Your task to perform on an android device: star an email in the gmail app Image 0: 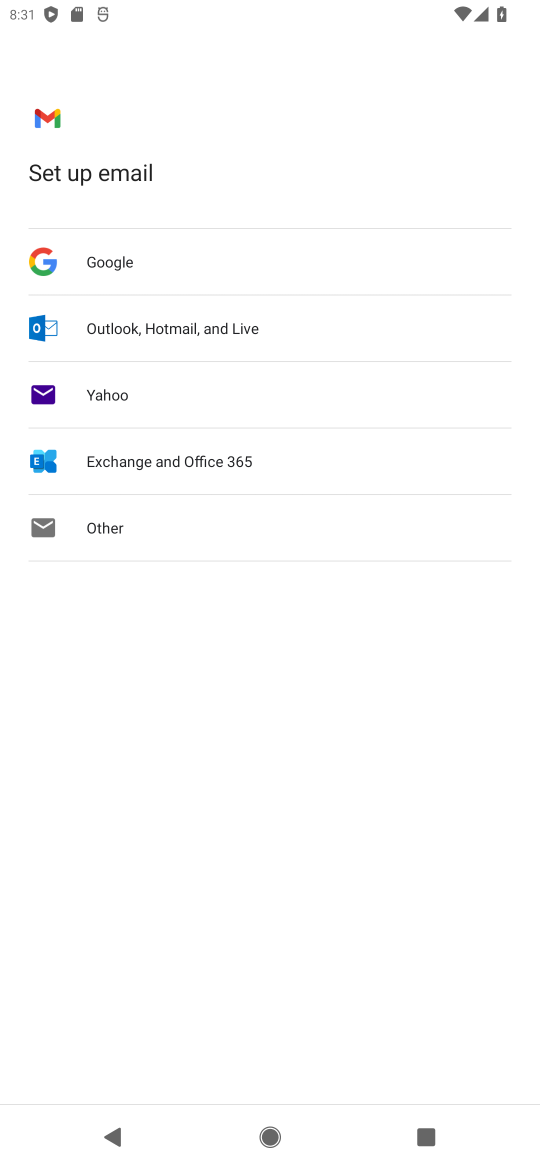
Step 0: press home button
Your task to perform on an android device: star an email in the gmail app Image 1: 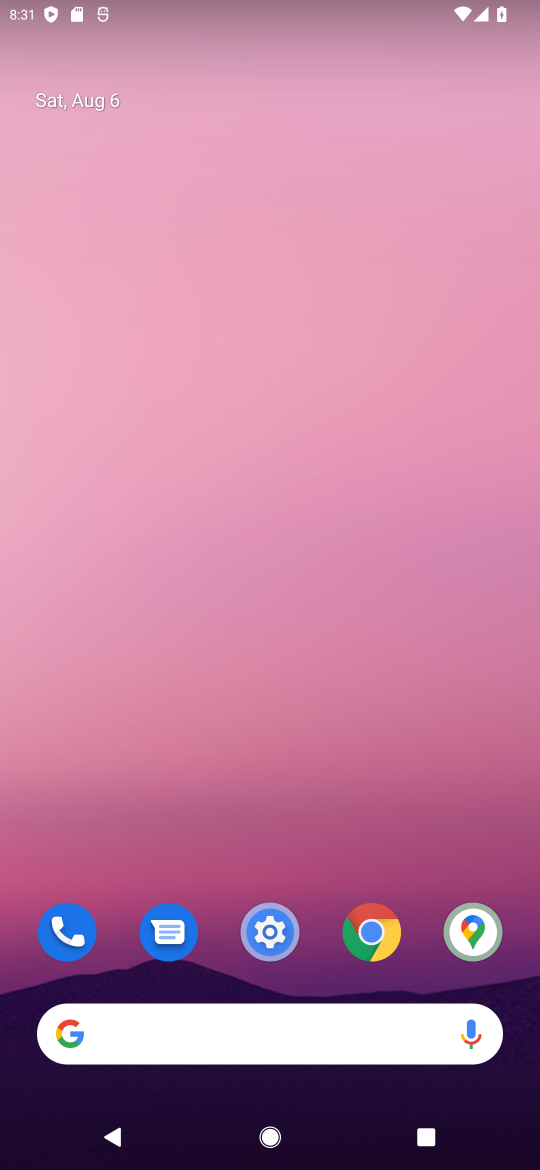
Step 1: drag from (231, 1047) to (277, 594)
Your task to perform on an android device: star an email in the gmail app Image 2: 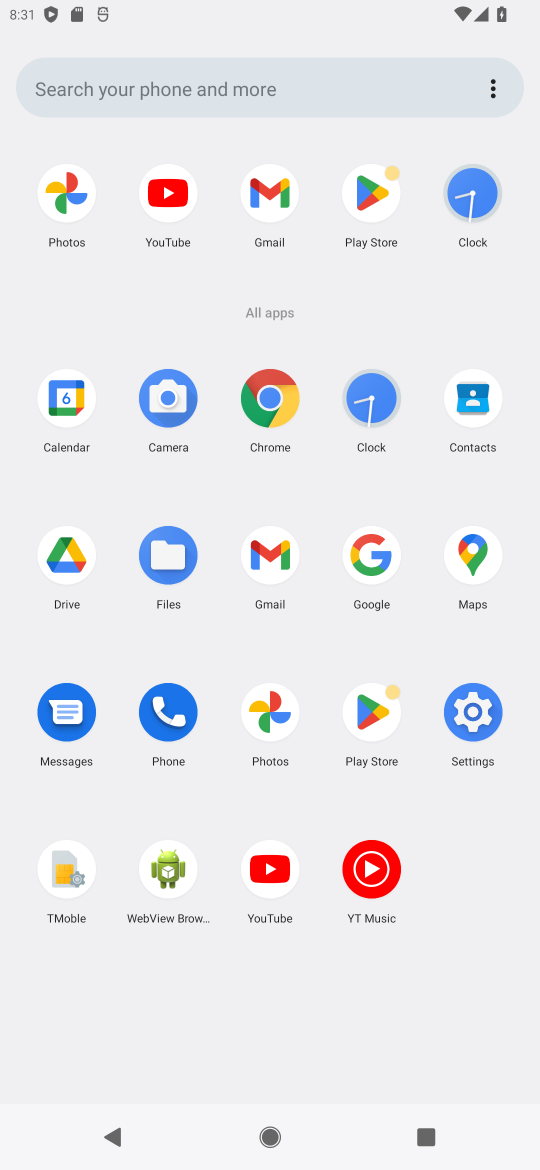
Step 2: click (270, 555)
Your task to perform on an android device: star an email in the gmail app Image 3: 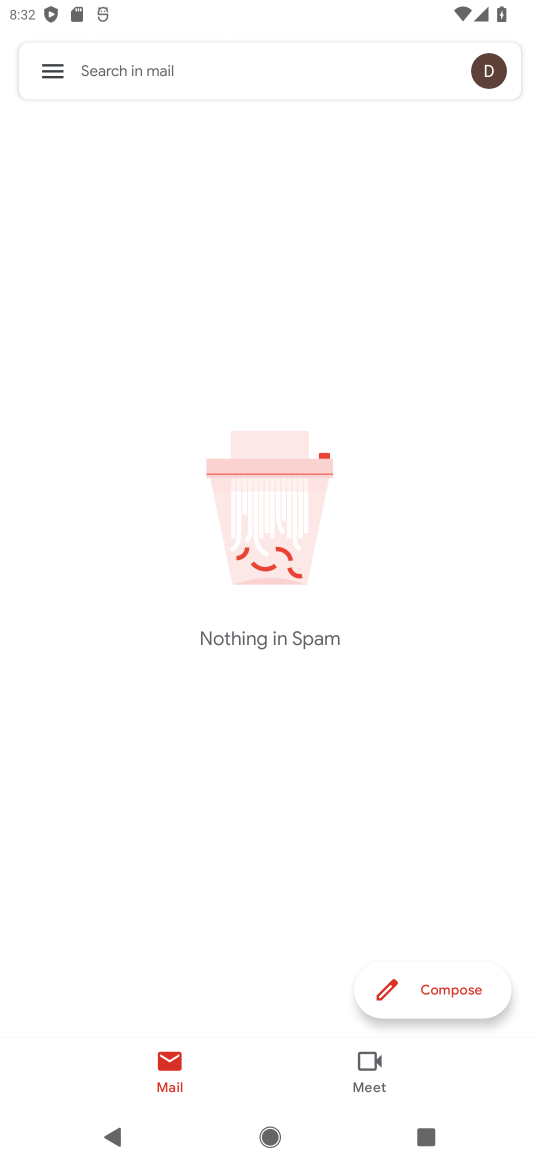
Step 3: click (46, 77)
Your task to perform on an android device: star an email in the gmail app Image 4: 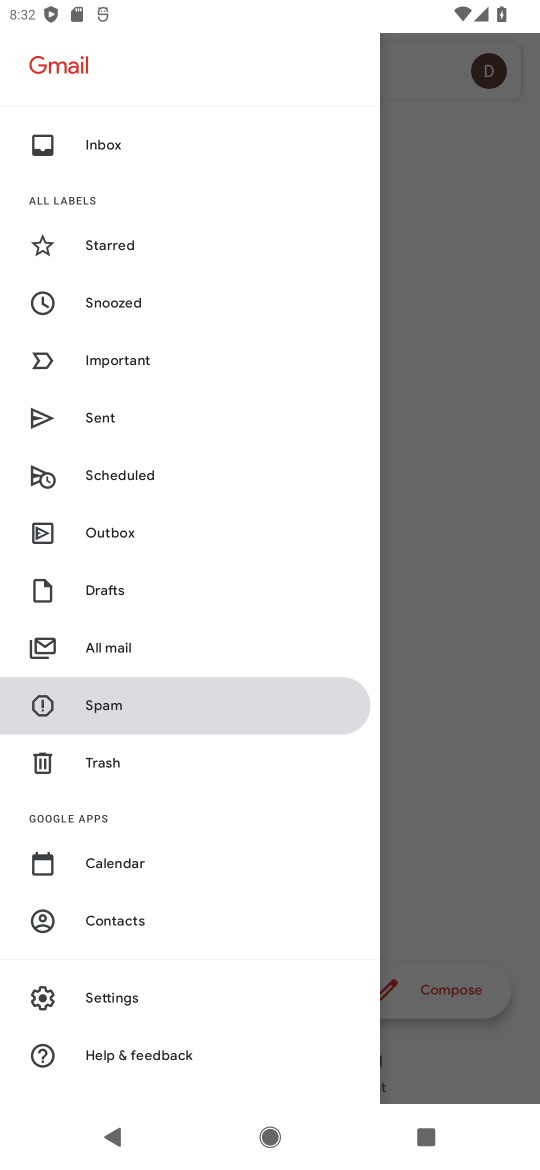
Step 4: click (101, 645)
Your task to perform on an android device: star an email in the gmail app Image 5: 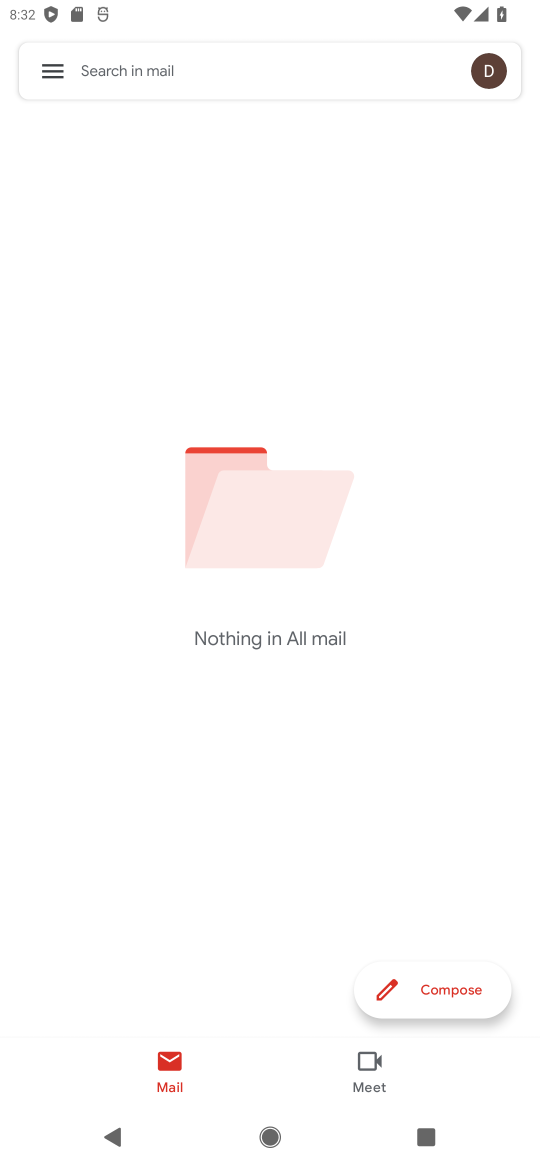
Step 5: click (49, 73)
Your task to perform on an android device: star an email in the gmail app Image 6: 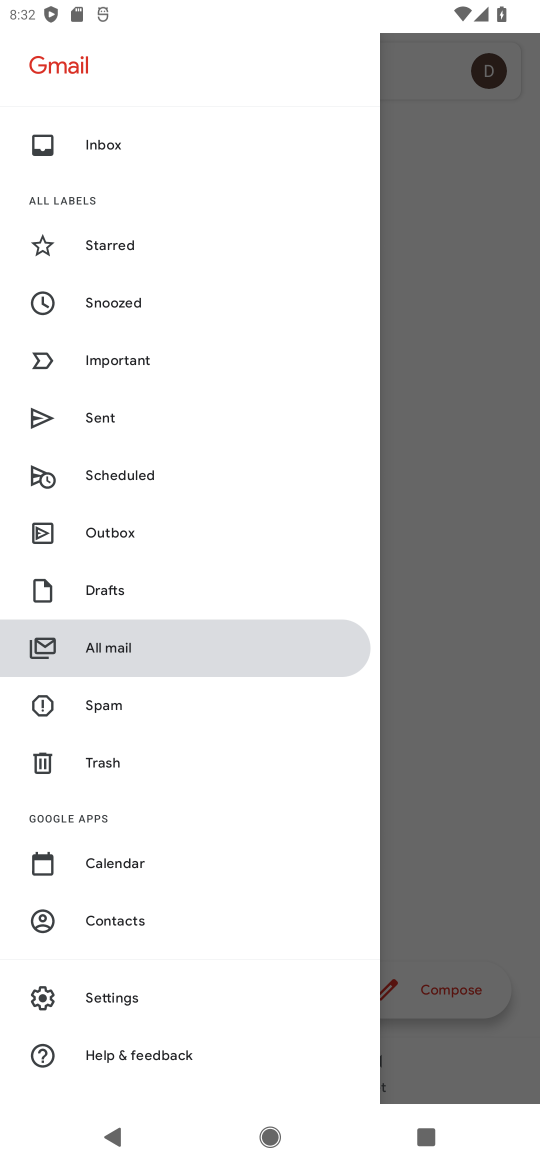
Step 6: click (89, 142)
Your task to perform on an android device: star an email in the gmail app Image 7: 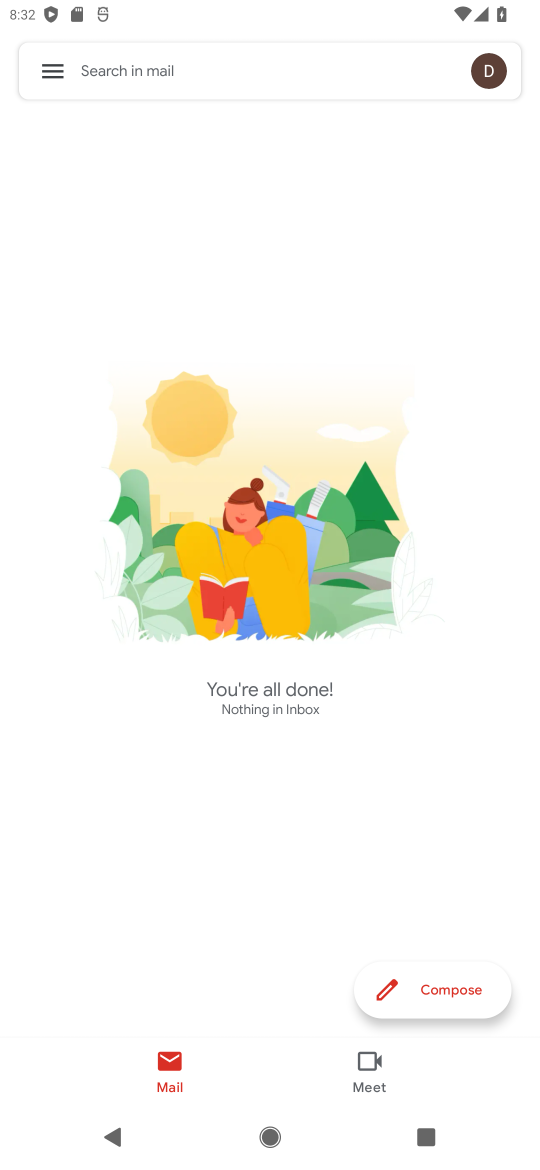
Step 7: click (44, 69)
Your task to perform on an android device: star an email in the gmail app Image 8: 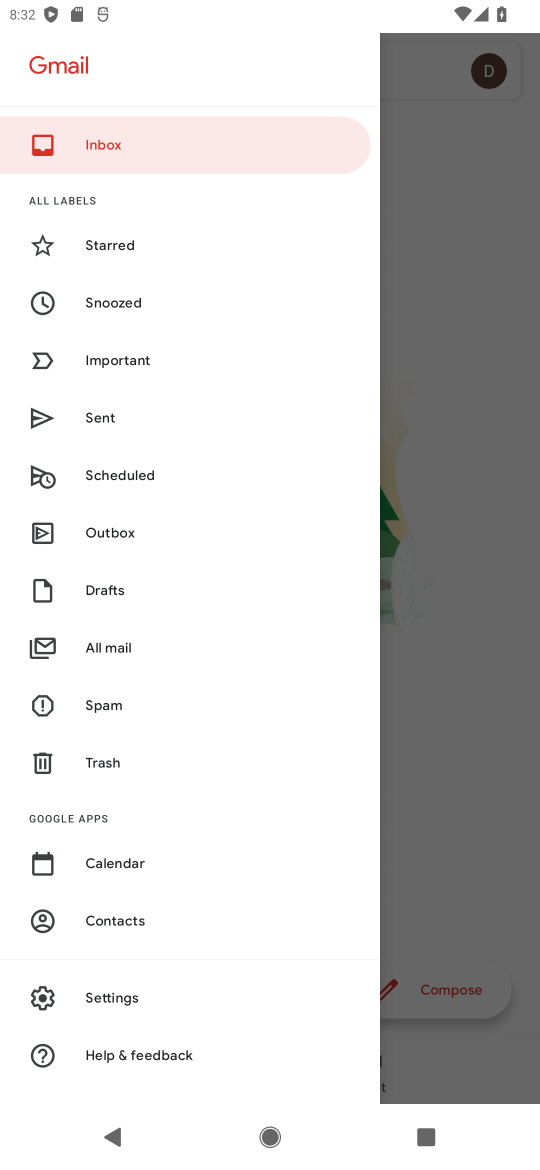
Step 8: click (117, 236)
Your task to perform on an android device: star an email in the gmail app Image 9: 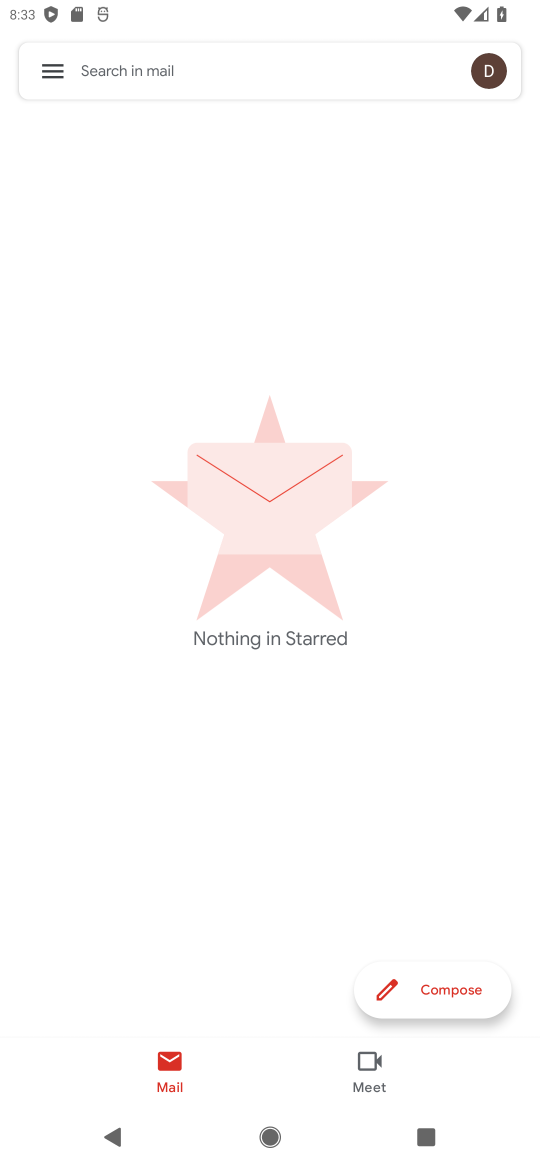
Step 9: click (57, 73)
Your task to perform on an android device: star an email in the gmail app Image 10: 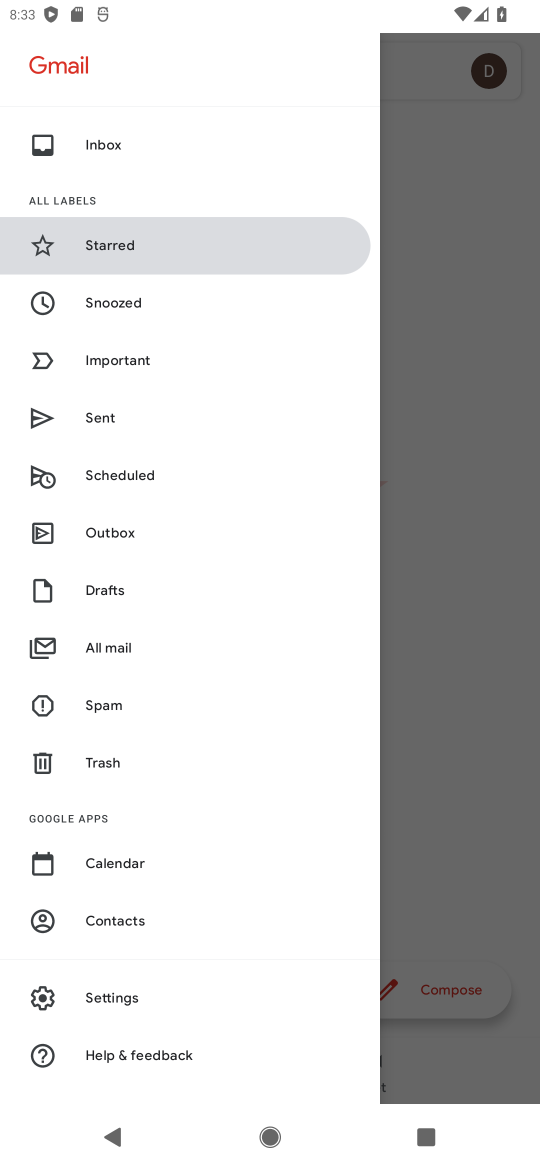
Step 10: click (130, 304)
Your task to perform on an android device: star an email in the gmail app Image 11: 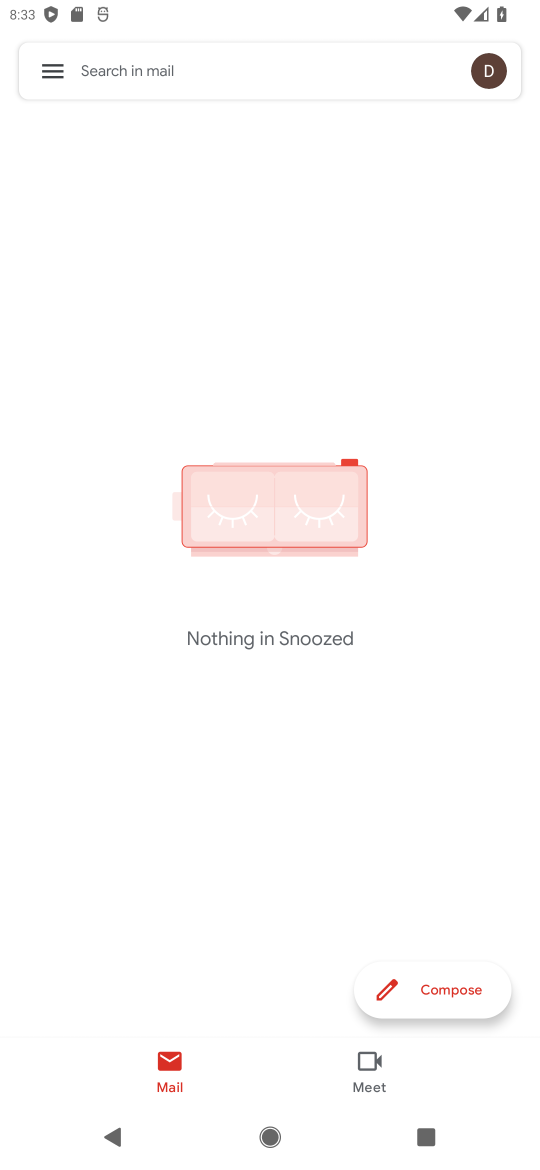
Step 11: click (45, 75)
Your task to perform on an android device: star an email in the gmail app Image 12: 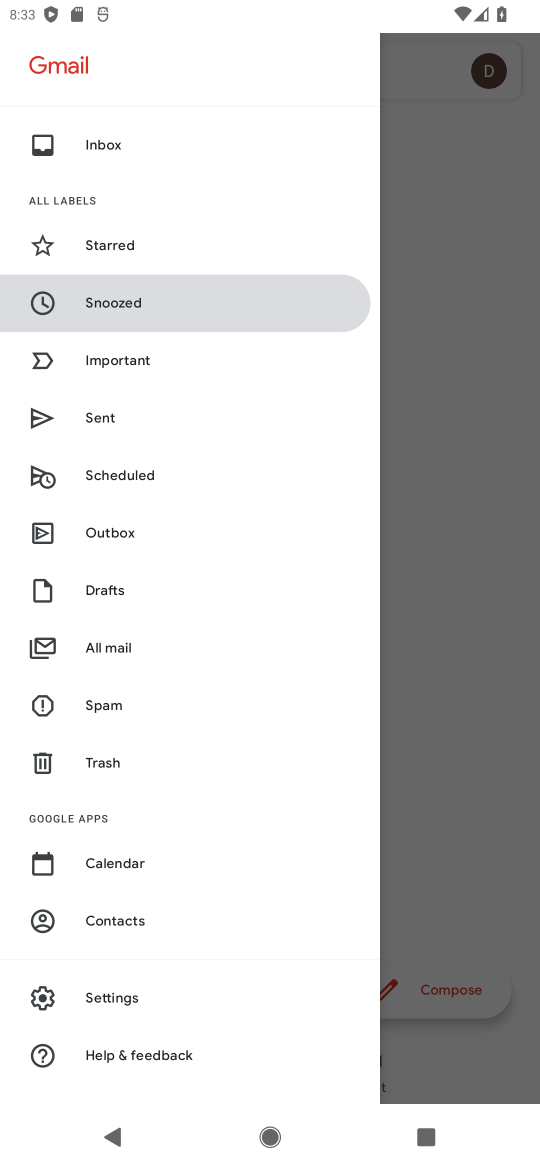
Step 12: click (149, 362)
Your task to perform on an android device: star an email in the gmail app Image 13: 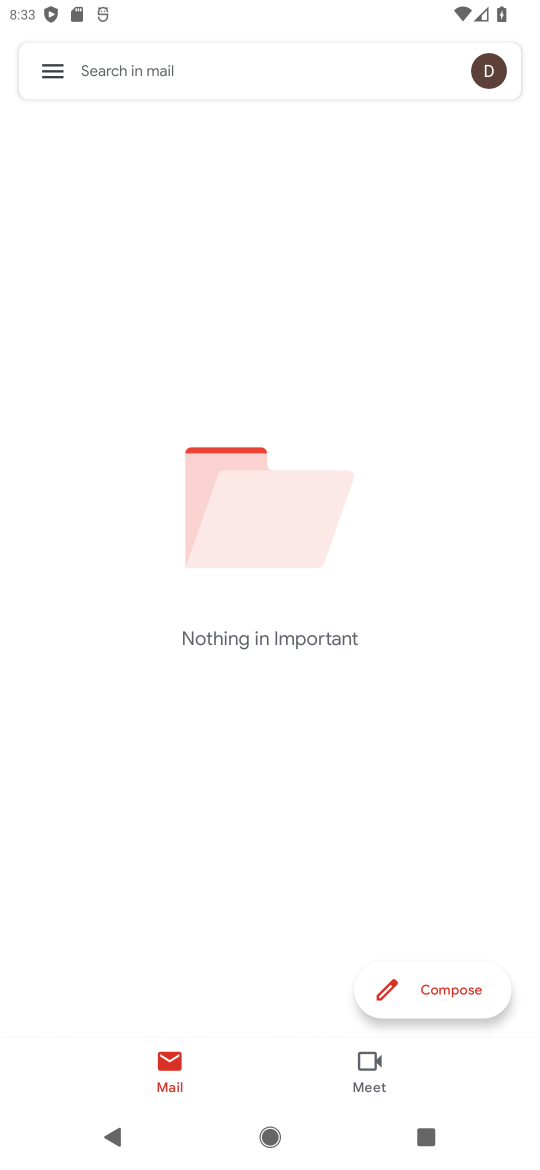
Step 13: task complete